Your task to perform on an android device: turn off notifications settings in the gmail app Image 0: 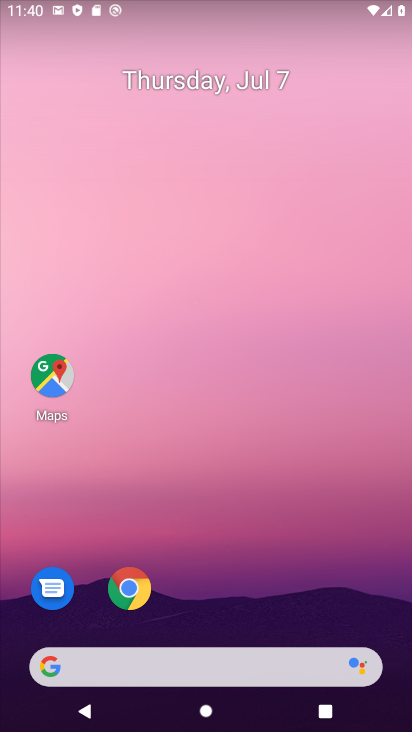
Step 0: drag from (188, 407) to (205, 28)
Your task to perform on an android device: turn off notifications settings in the gmail app Image 1: 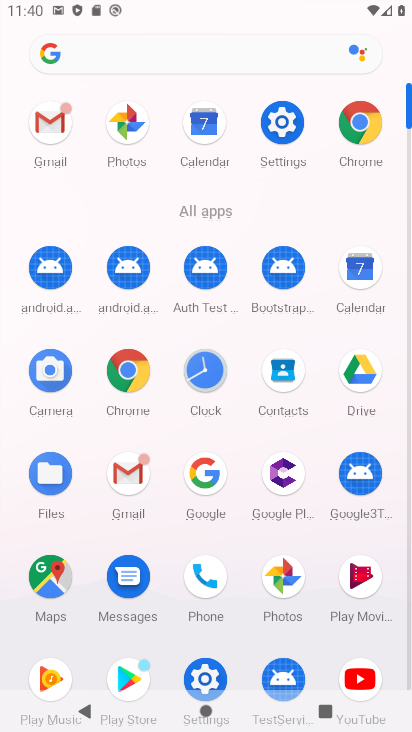
Step 1: click (37, 133)
Your task to perform on an android device: turn off notifications settings in the gmail app Image 2: 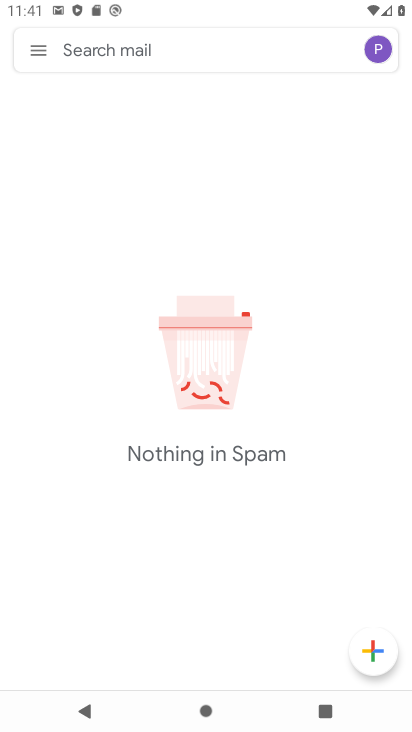
Step 2: press home button
Your task to perform on an android device: turn off notifications settings in the gmail app Image 3: 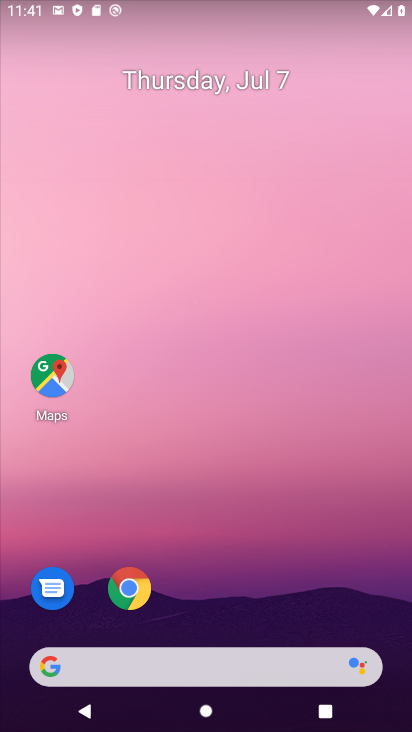
Step 3: drag from (210, 486) to (233, 207)
Your task to perform on an android device: turn off notifications settings in the gmail app Image 4: 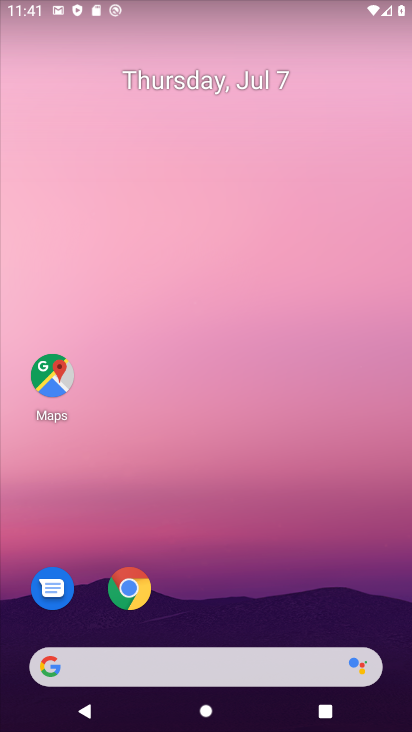
Step 4: drag from (210, 552) to (210, 180)
Your task to perform on an android device: turn off notifications settings in the gmail app Image 5: 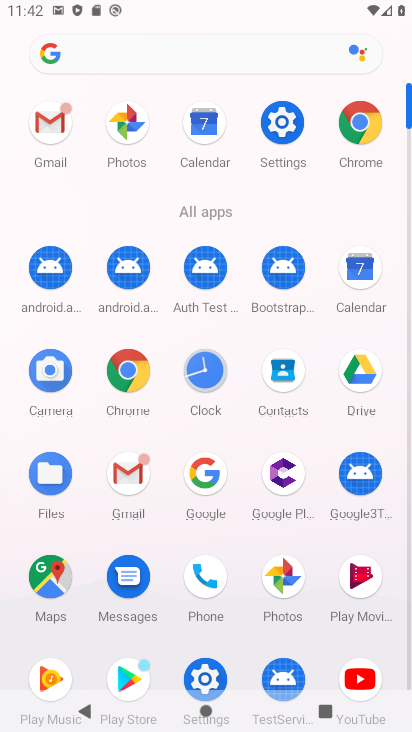
Step 5: click (43, 109)
Your task to perform on an android device: turn off notifications settings in the gmail app Image 6: 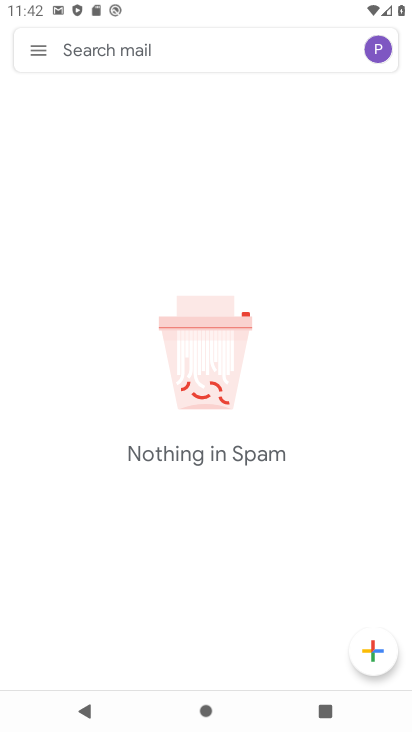
Step 6: click (40, 54)
Your task to perform on an android device: turn off notifications settings in the gmail app Image 7: 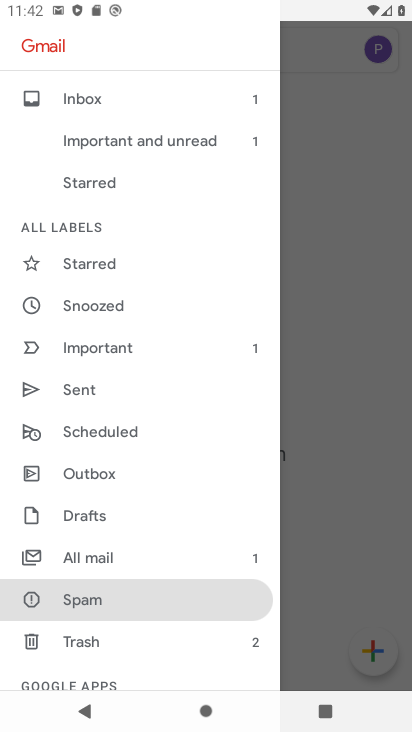
Step 7: drag from (136, 449) to (180, 173)
Your task to perform on an android device: turn off notifications settings in the gmail app Image 8: 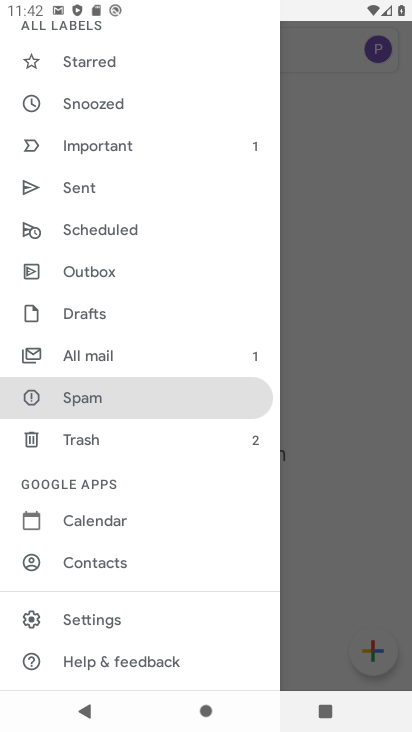
Step 8: click (107, 618)
Your task to perform on an android device: turn off notifications settings in the gmail app Image 9: 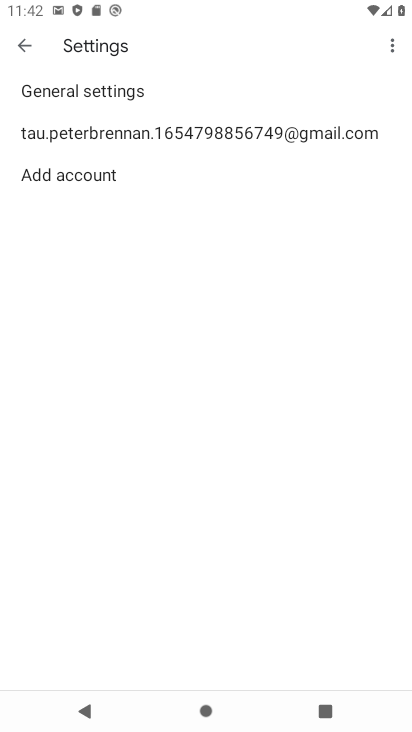
Step 9: click (250, 128)
Your task to perform on an android device: turn off notifications settings in the gmail app Image 10: 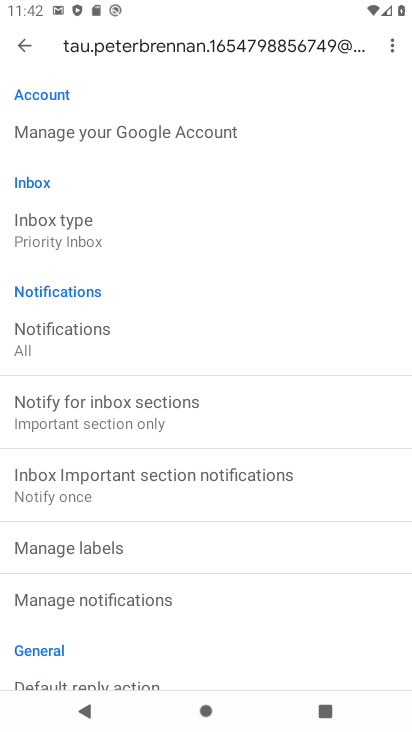
Step 10: click (141, 603)
Your task to perform on an android device: turn off notifications settings in the gmail app Image 11: 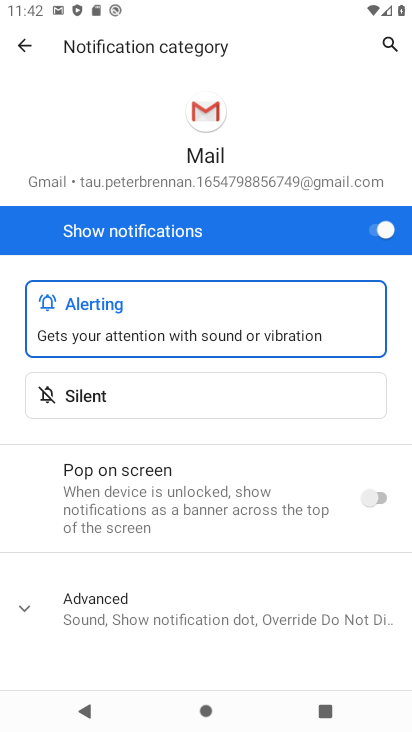
Step 11: click (371, 233)
Your task to perform on an android device: turn off notifications settings in the gmail app Image 12: 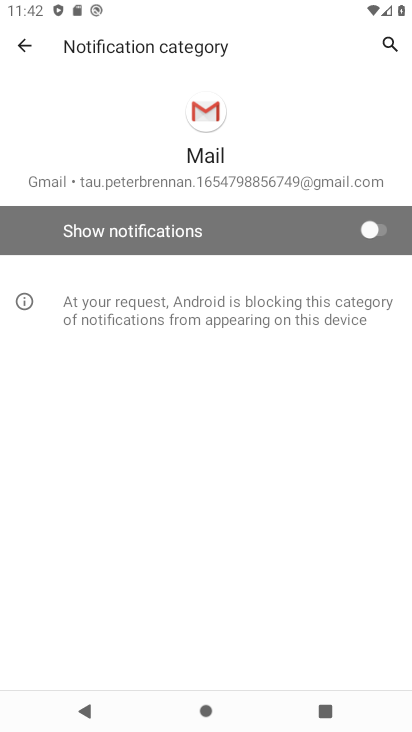
Step 12: task complete